Your task to perform on an android device: Open Amazon Image 0: 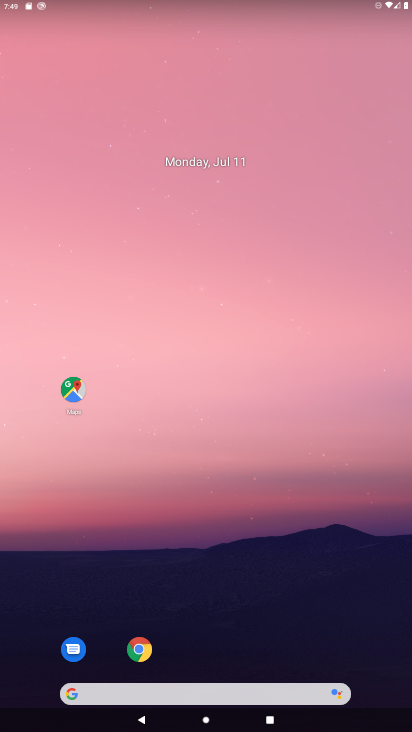
Step 0: click (140, 651)
Your task to perform on an android device: Open Amazon Image 1: 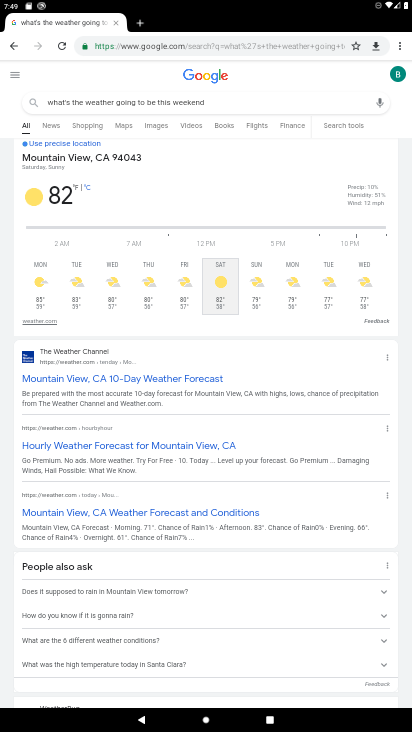
Step 1: click (287, 43)
Your task to perform on an android device: Open Amazon Image 2: 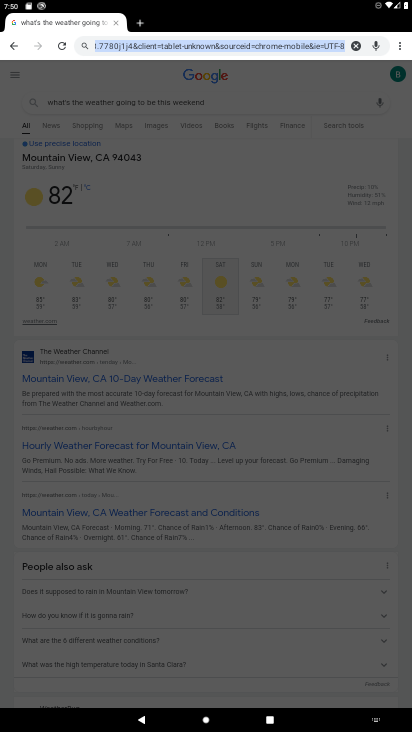
Step 2: type "Amazon"
Your task to perform on an android device: Open Amazon Image 3: 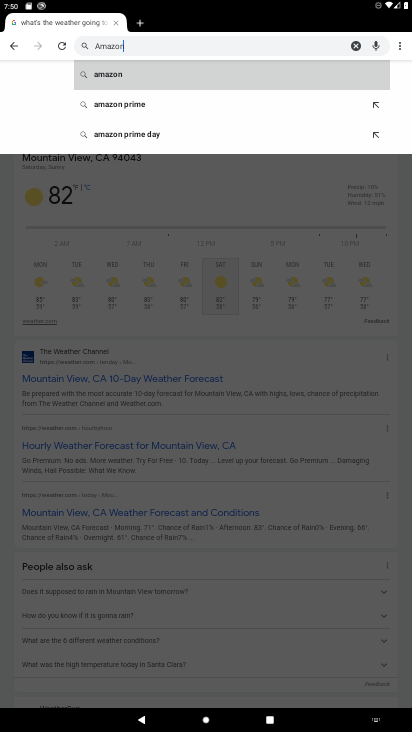
Step 3: click (130, 83)
Your task to perform on an android device: Open Amazon Image 4: 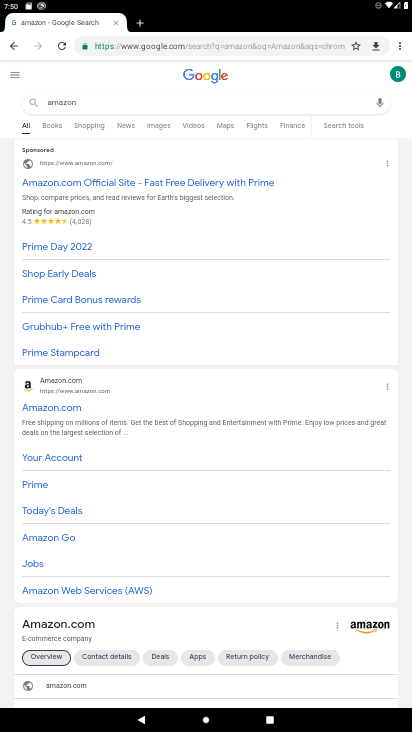
Step 4: click (48, 391)
Your task to perform on an android device: Open Amazon Image 5: 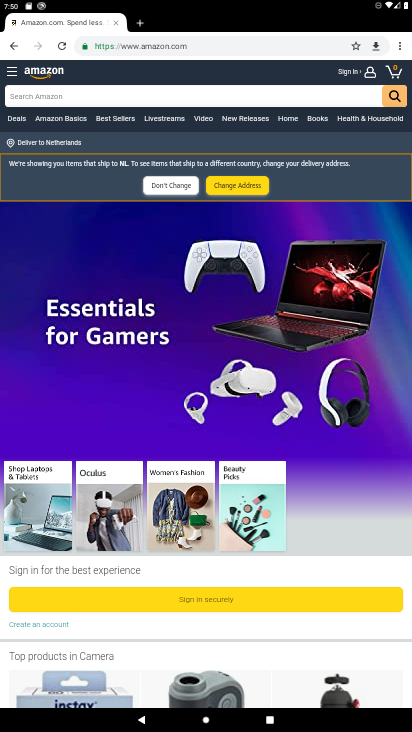
Step 5: task complete